Your task to perform on an android device: check out phone information Image 0: 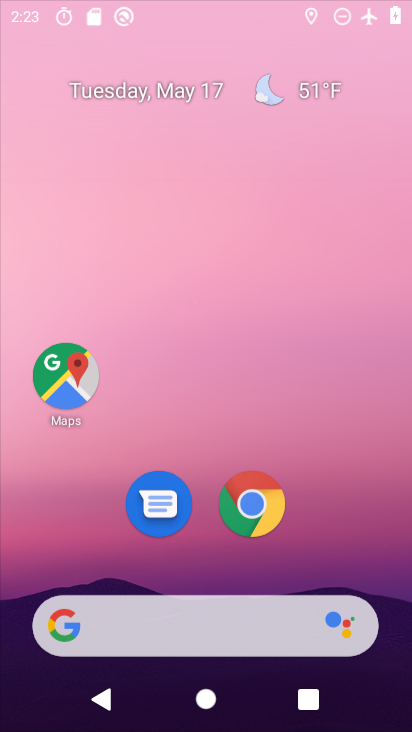
Step 0: click (234, 89)
Your task to perform on an android device: check out phone information Image 1: 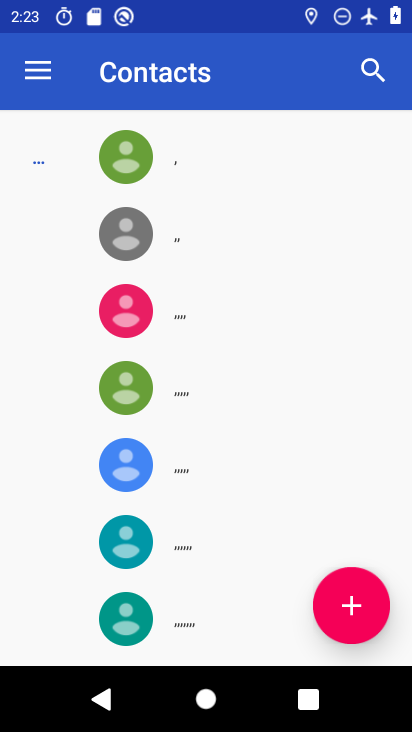
Step 1: press home button
Your task to perform on an android device: check out phone information Image 2: 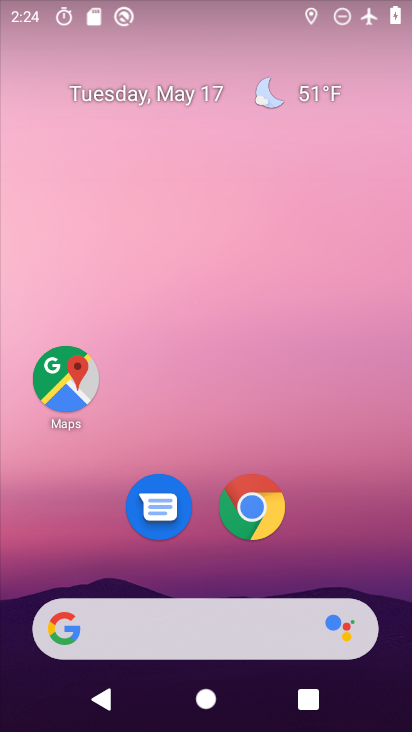
Step 2: drag from (213, 577) to (214, 140)
Your task to perform on an android device: check out phone information Image 3: 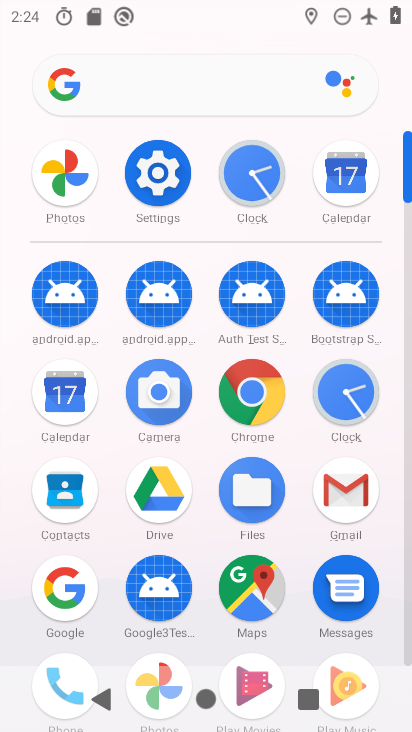
Step 3: drag from (201, 539) to (199, 66)
Your task to perform on an android device: check out phone information Image 4: 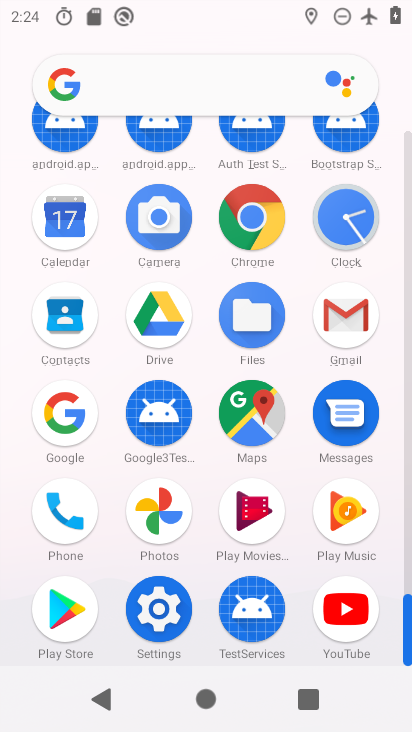
Step 4: click (161, 613)
Your task to perform on an android device: check out phone information Image 5: 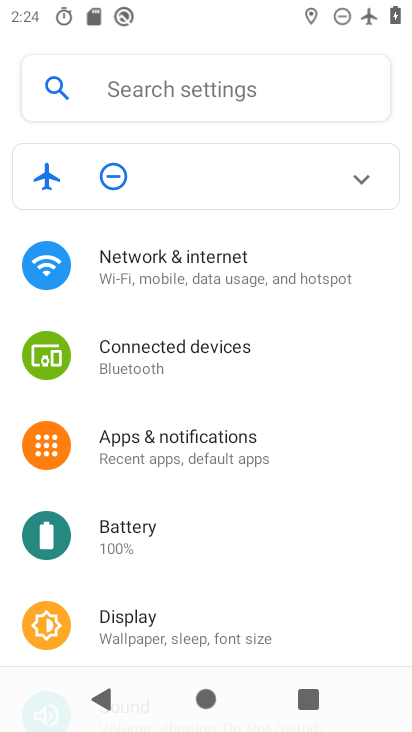
Step 5: drag from (237, 608) to (281, 106)
Your task to perform on an android device: check out phone information Image 6: 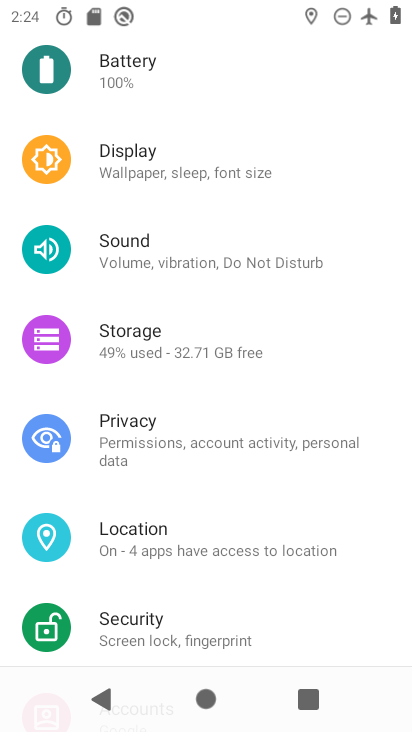
Step 6: drag from (187, 600) to (239, 23)
Your task to perform on an android device: check out phone information Image 7: 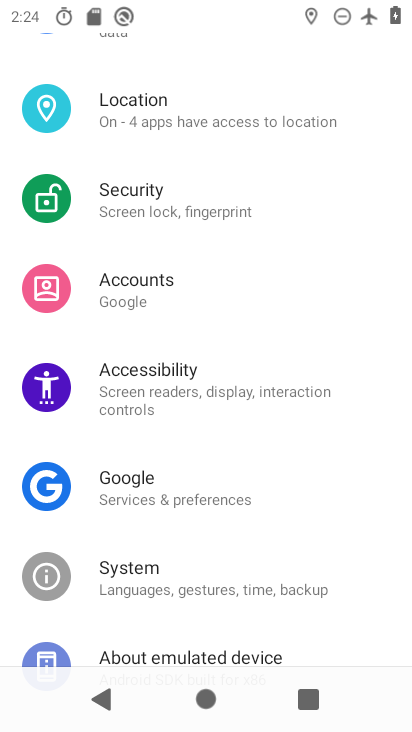
Step 7: drag from (204, 604) to (246, 181)
Your task to perform on an android device: check out phone information Image 8: 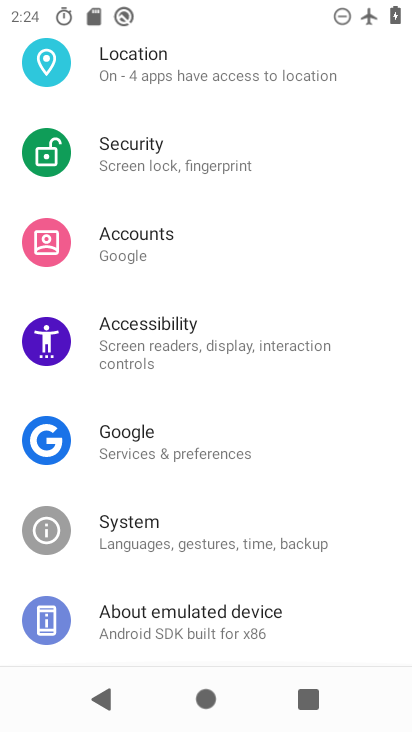
Step 8: click (214, 620)
Your task to perform on an android device: check out phone information Image 9: 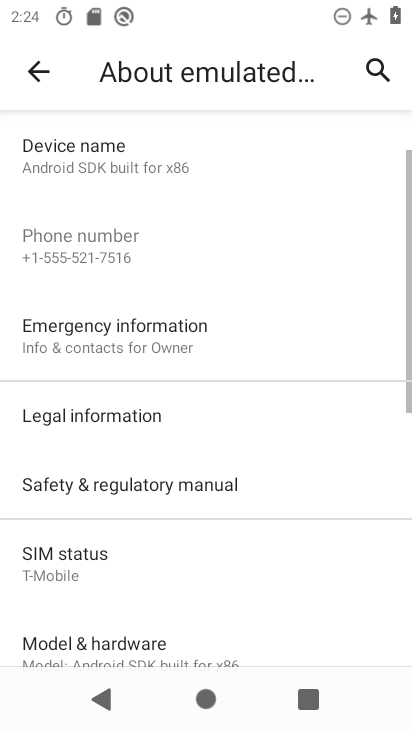
Step 9: task complete